Your task to perform on an android device: check the backup settings in the google photos Image 0: 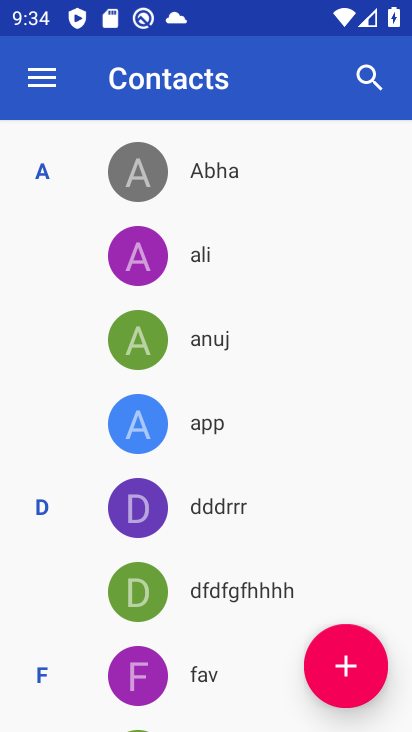
Step 0: press home button
Your task to perform on an android device: check the backup settings in the google photos Image 1: 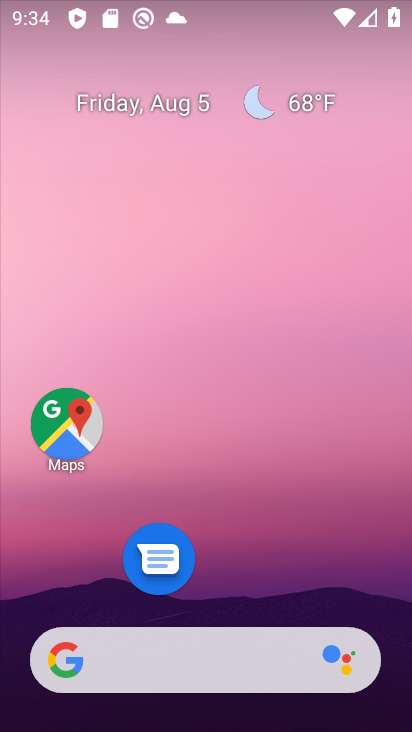
Step 1: drag from (233, 686) to (379, 198)
Your task to perform on an android device: check the backup settings in the google photos Image 2: 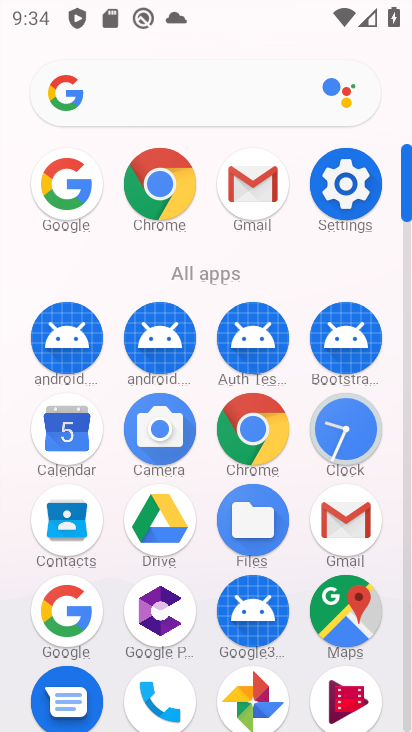
Step 2: drag from (239, 570) to (275, 255)
Your task to perform on an android device: check the backup settings in the google photos Image 3: 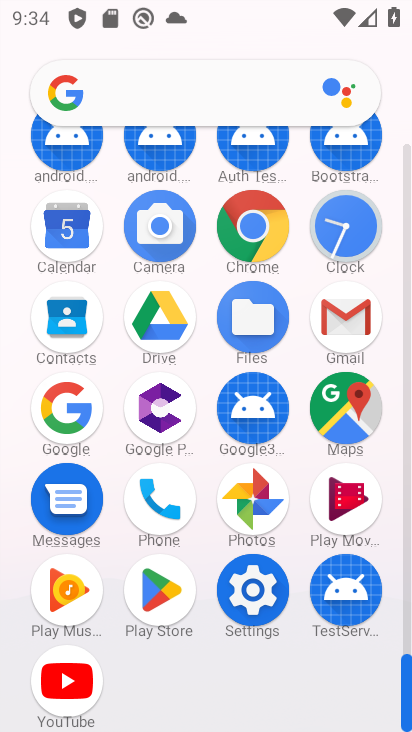
Step 3: click (263, 510)
Your task to perform on an android device: check the backup settings in the google photos Image 4: 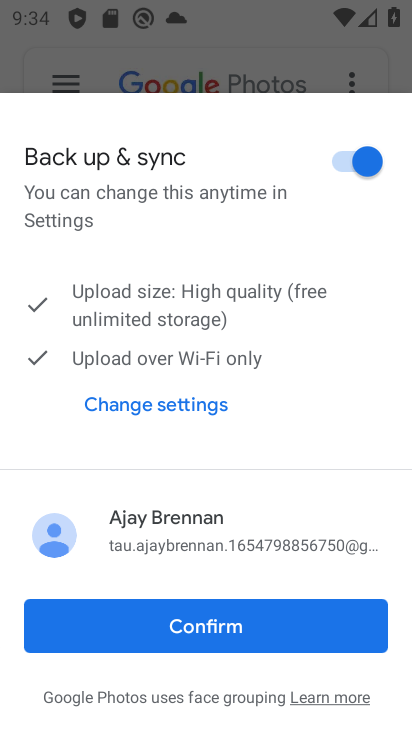
Step 4: click (266, 633)
Your task to perform on an android device: check the backup settings in the google photos Image 5: 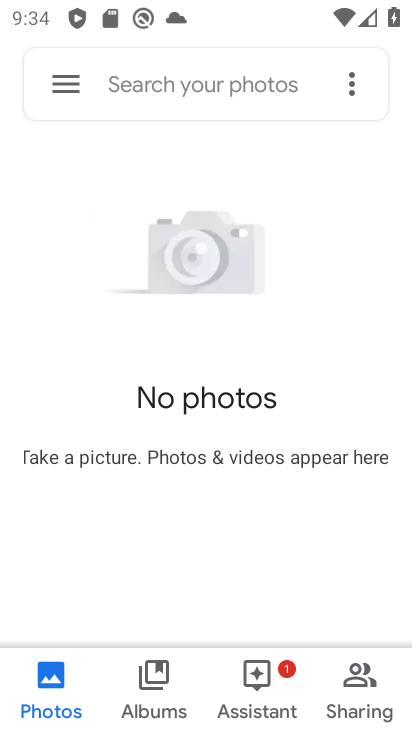
Step 5: click (65, 83)
Your task to perform on an android device: check the backup settings in the google photos Image 6: 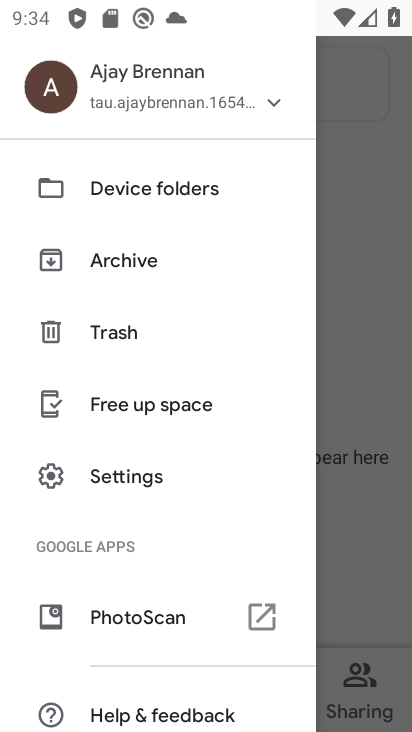
Step 6: click (133, 478)
Your task to perform on an android device: check the backup settings in the google photos Image 7: 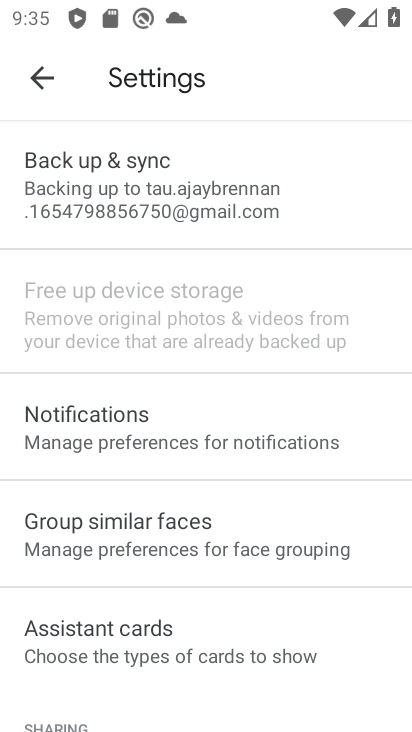
Step 7: click (157, 200)
Your task to perform on an android device: check the backup settings in the google photos Image 8: 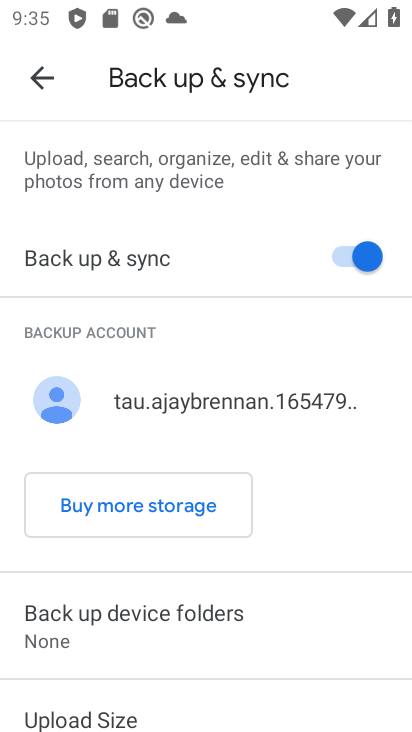
Step 8: drag from (197, 615) to (215, 270)
Your task to perform on an android device: check the backup settings in the google photos Image 9: 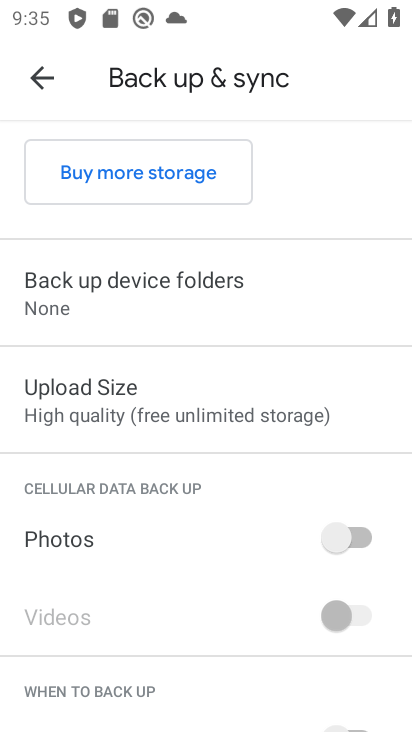
Step 9: click (186, 420)
Your task to perform on an android device: check the backup settings in the google photos Image 10: 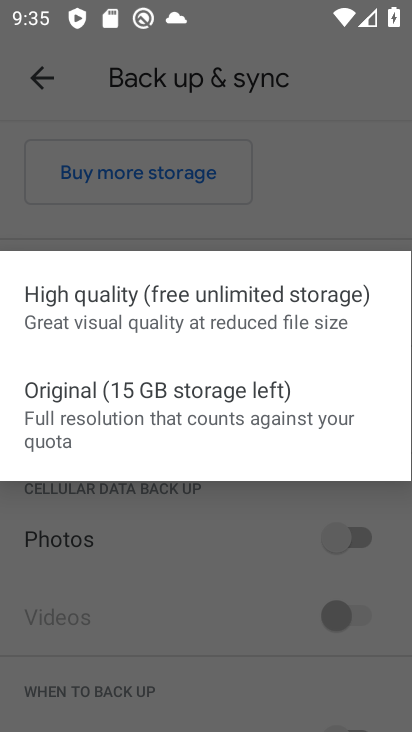
Step 10: click (187, 306)
Your task to perform on an android device: check the backup settings in the google photos Image 11: 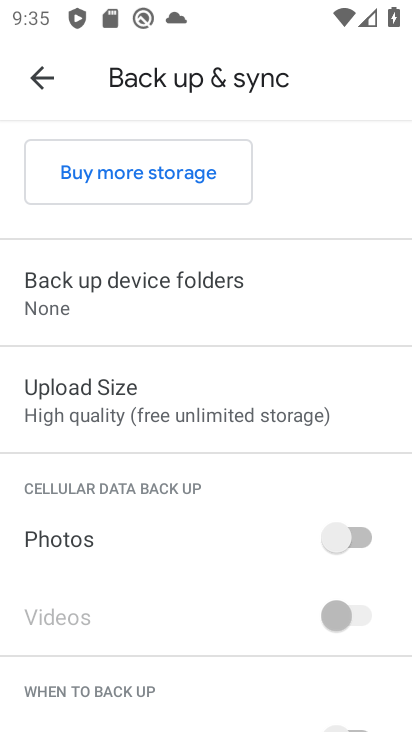
Step 11: task complete